Your task to perform on an android device: open wifi settings Image 0: 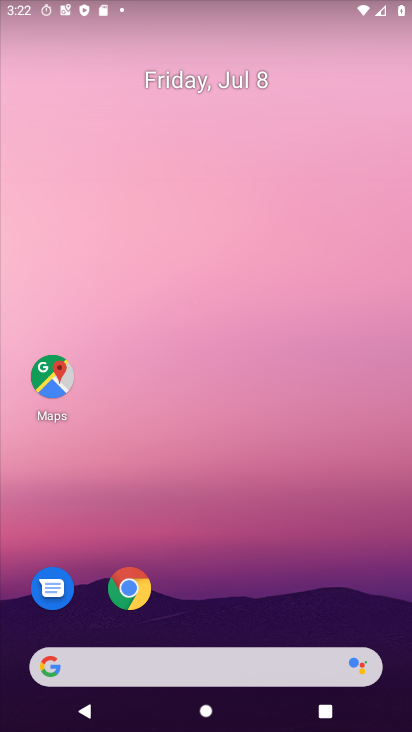
Step 0: press home button
Your task to perform on an android device: open wifi settings Image 1: 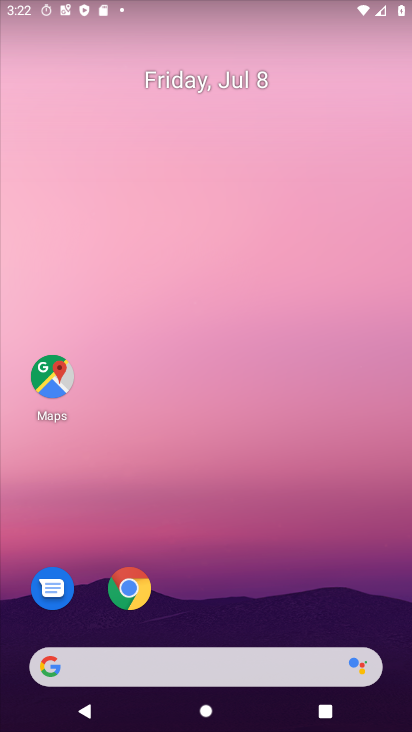
Step 1: drag from (236, 630) to (185, 22)
Your task to perform on an android device: open wifi settings Image 2: 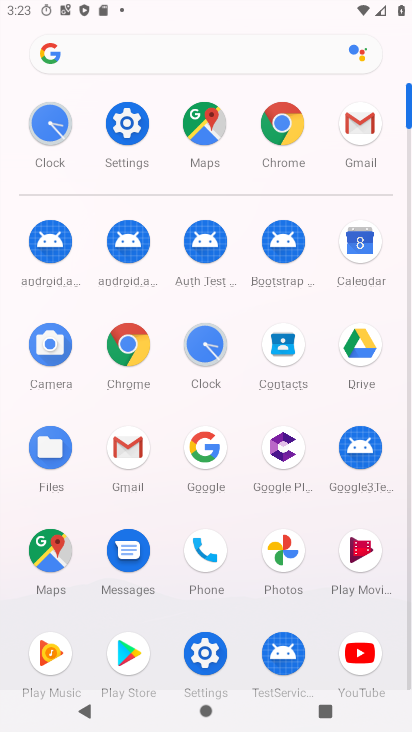
Step 2: click (130, 114)
Your task to perform on an android device: open wifi settings Image 3: 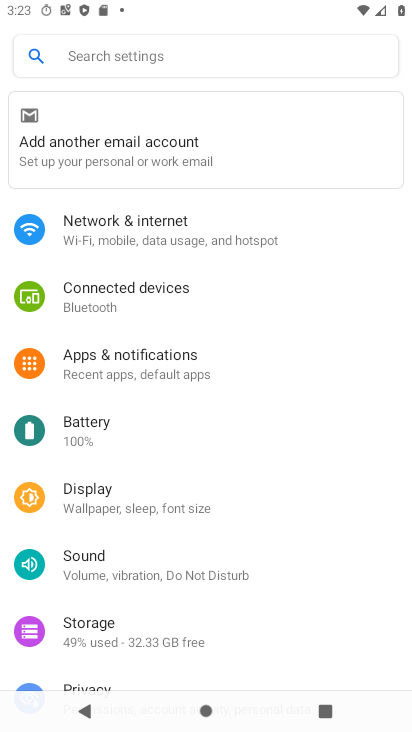
Step 3: click (103, 232)
Your task to perform on an android device: open wifi settings Image 4: 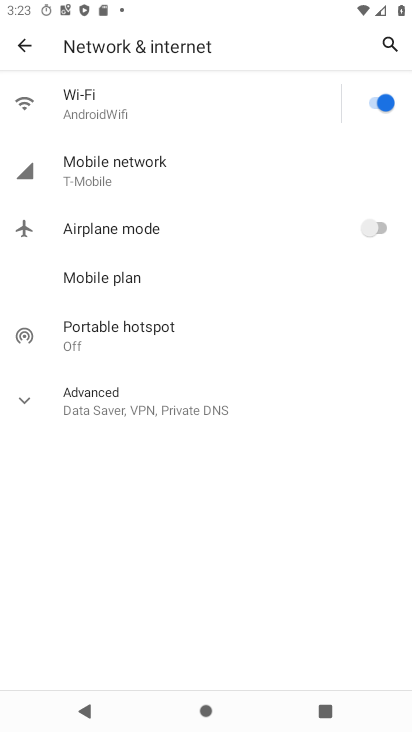
Step 4: click (86, 112)
Your task to perform on an android device: open wifi settings Image 5: 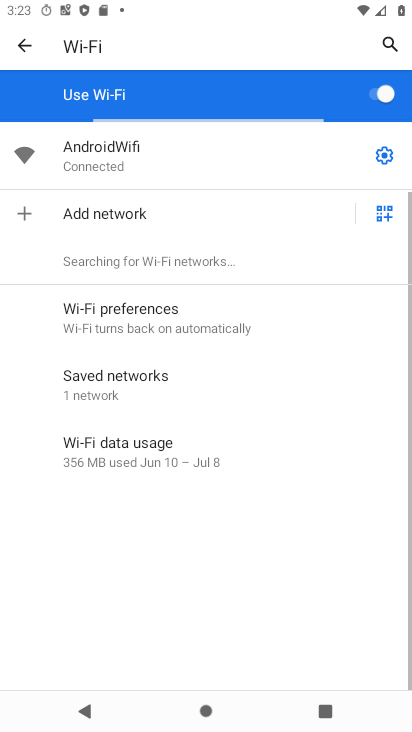
Step 5: task complete